Your task to perform on an android device: Open accessibility settings Image 0: 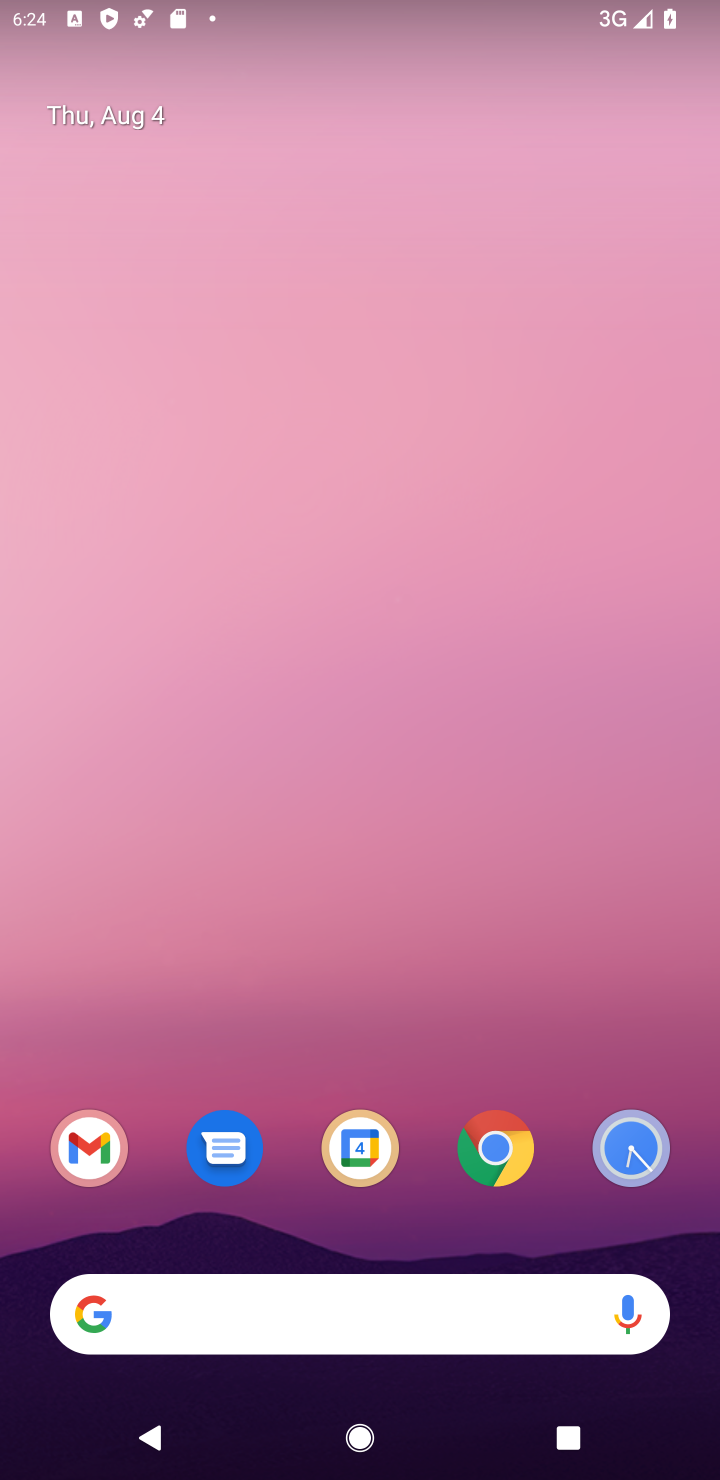
Step 0: drag from (565, 1230) to (559, 373)
Your task to perform on an android device: Open accessibility settings Image 1: 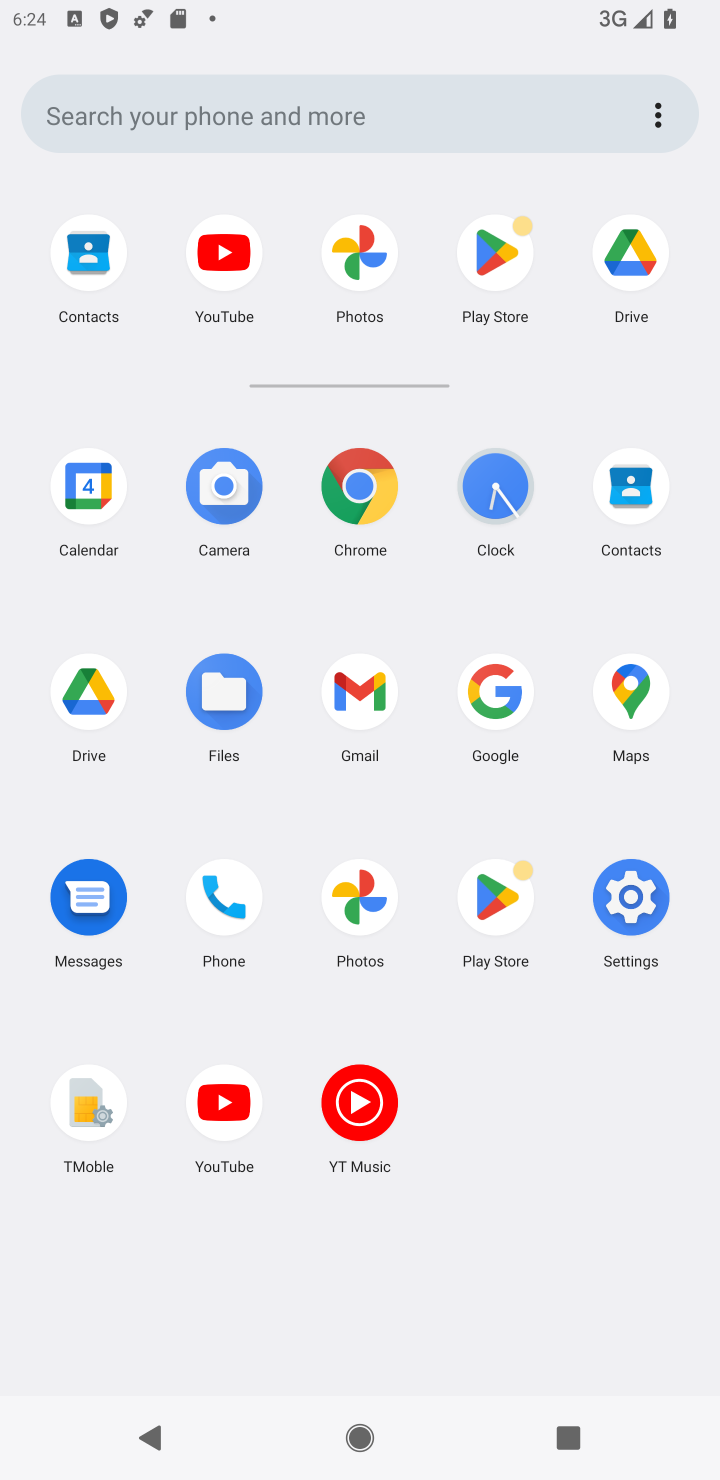
Step 1: click (631, 898)
Your task to perform on an android device: Open accessibility settings Image 2: 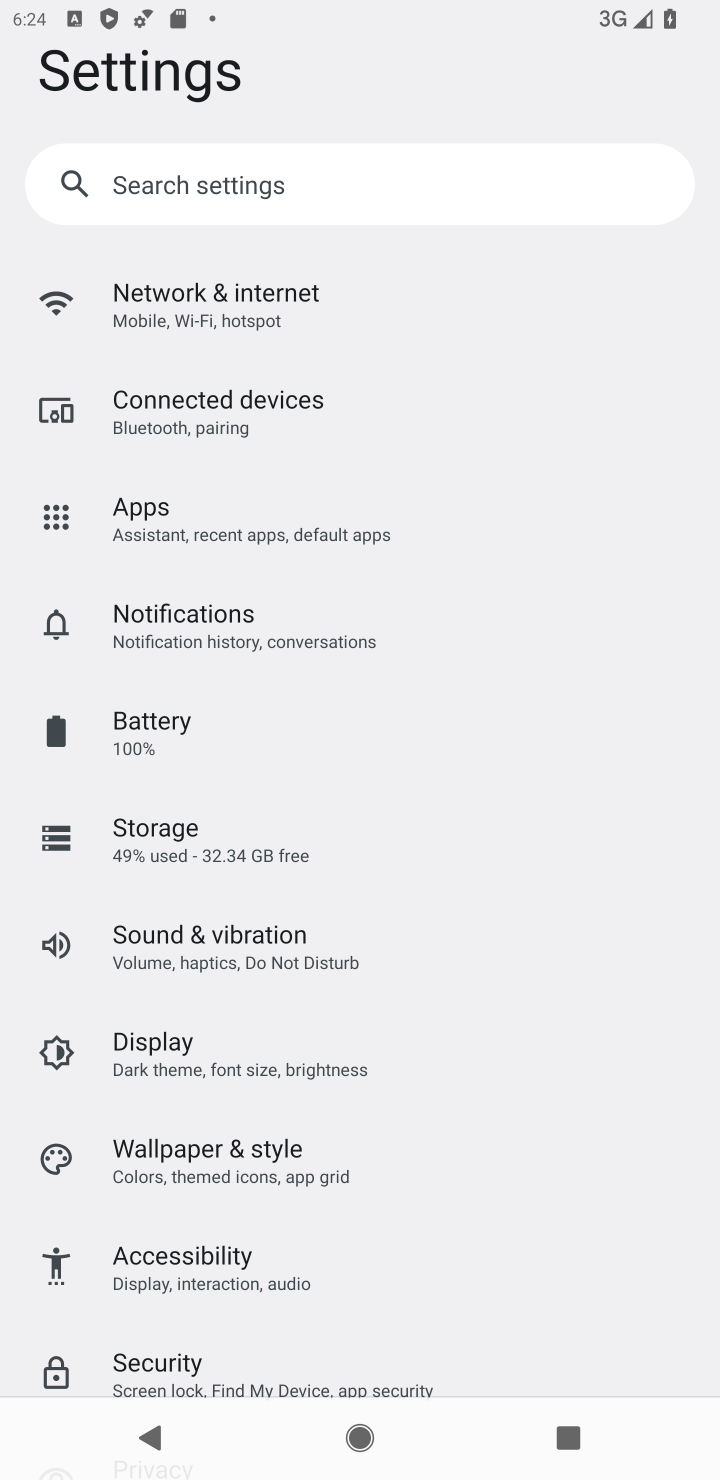
Step 2: drag from (460, 1111) to (423, 386)
Your task to perform on an android device: Open accessibility settings Image 3: 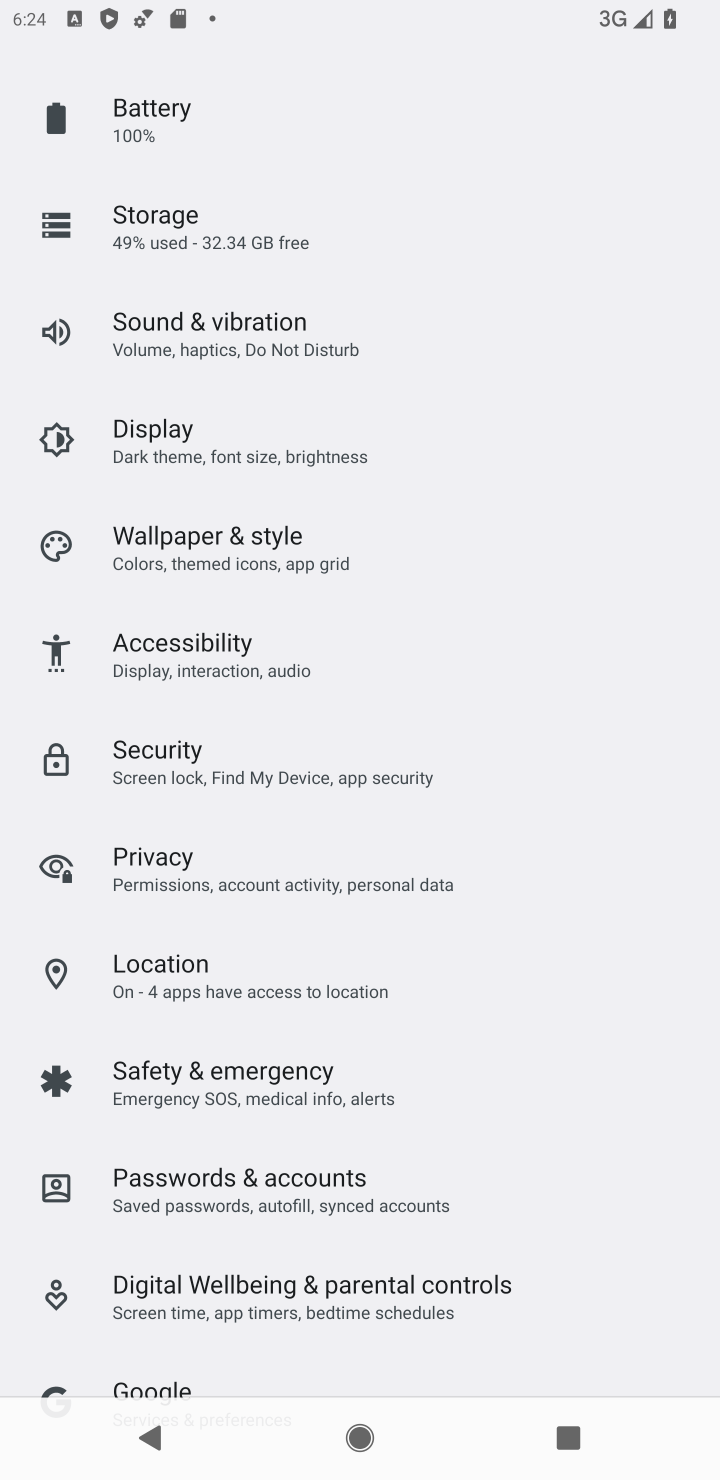
Step 3: click (162, 656)
Your task to perform on an android device: Open accessibility settings Image 4: 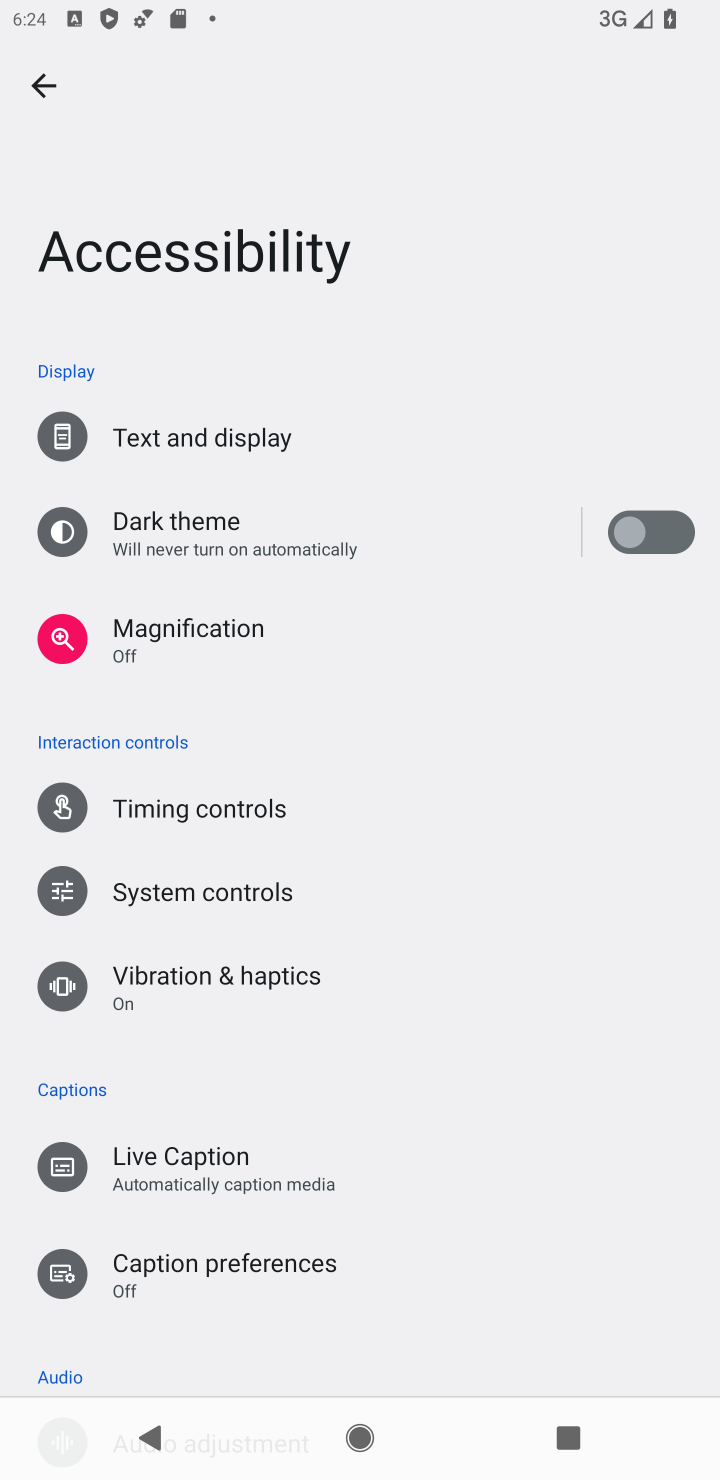
Step 4: task complete